Your task to perform on an android device: check the backup settings in the google photos Image 0: 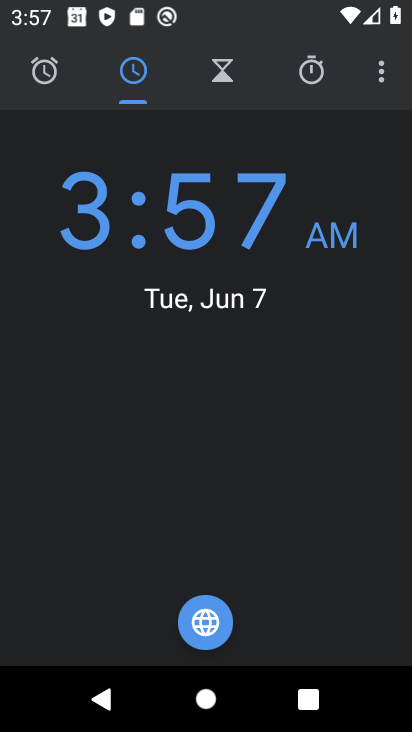
Step 0: press back button
Your task to perform on an android device: check the backup settings in the google photos Image 1: 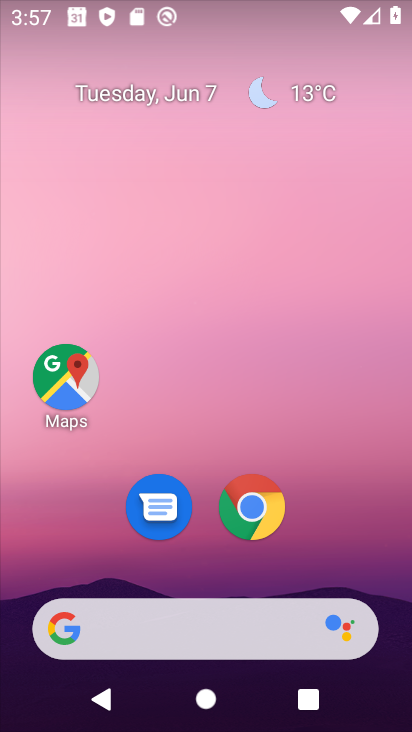
Step 1: drag from (288, 250) to (230, 29)
Your task to perform on an android device: check the backup settings in the google photos Image 2: 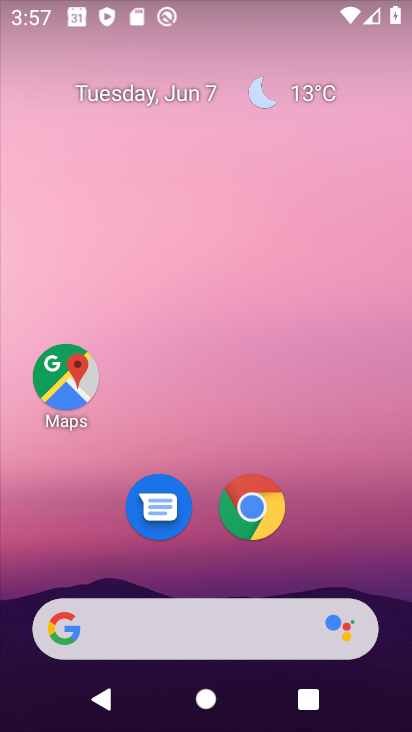
Step 2: drag from (304, 475) to (216, 36)
Your task to perform on an android device: check the backup settings in the google photos Image 3: 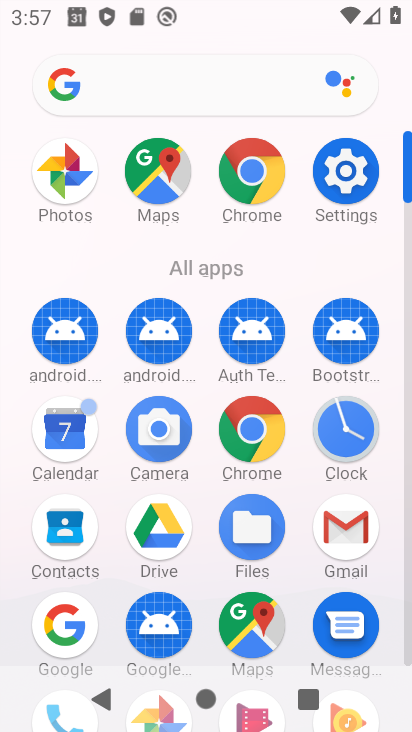
Step 3: drag from (27, 594) to (12, 229)
Your task to perform on an android device: check the backup settings in the google photos Image 4: 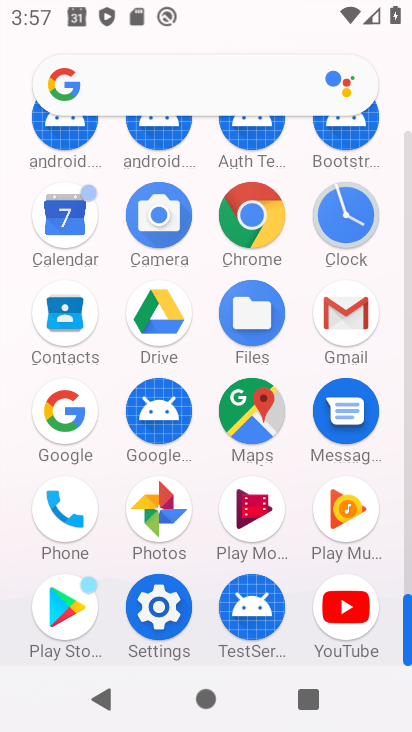
Step 4: click (158, 508)
Your task to perform on an android device: check the backup settings in the google photos Image 5: 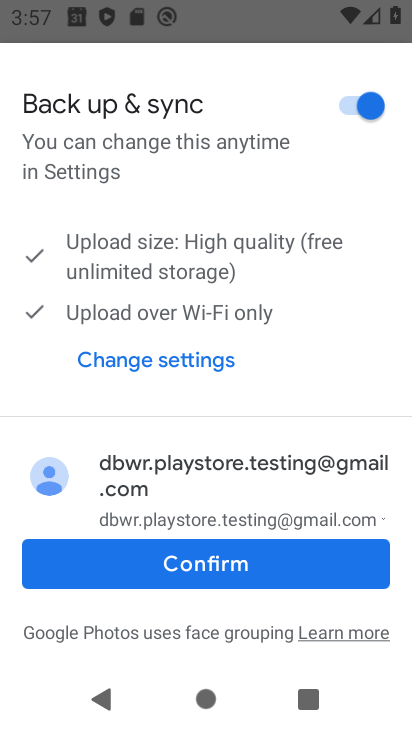
Step 5: click (267, 558)
Your task to perform on an android device: check the backup settings in the google photos Image 6: 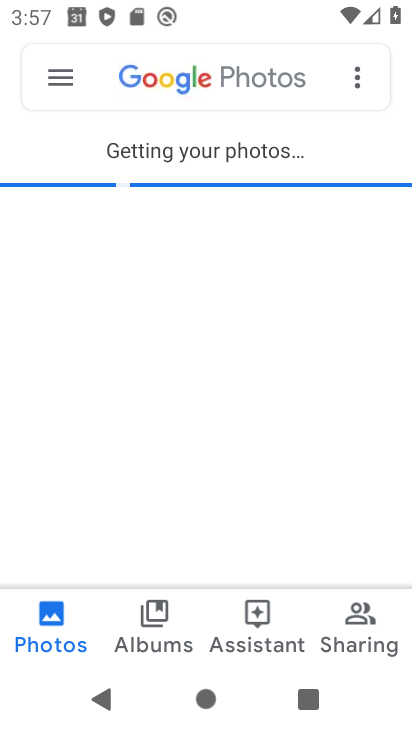
Step 6: click (59, 79)
Your task to perform on an android device: check the backup settings in the google photos Image 7: 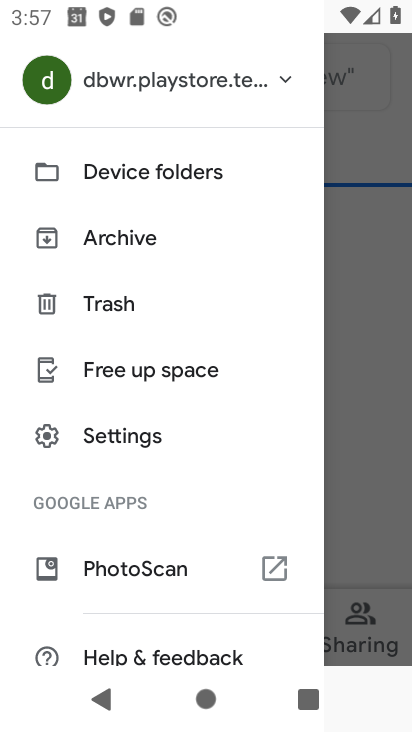
Step 7: click (157, 428)
Your task to perform on an android device: check the backup settings in the google photos Image 8: 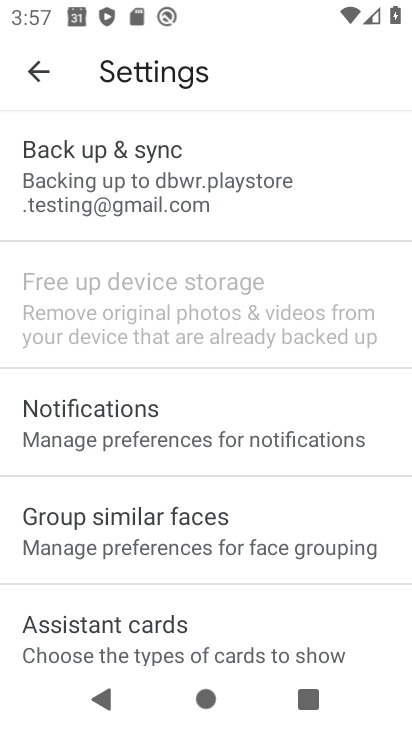
Step 8: click (188, 183)
Your task to perform on an android device: check the backup settings in the google photos Image 9: 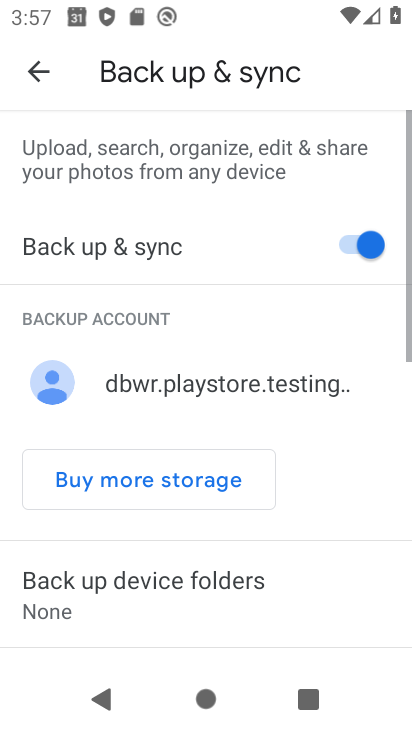
Step 9: drag from (342, 568) to (270, 179)
Your task to perform on an android device: check the backup settings in the google photos Image 10: 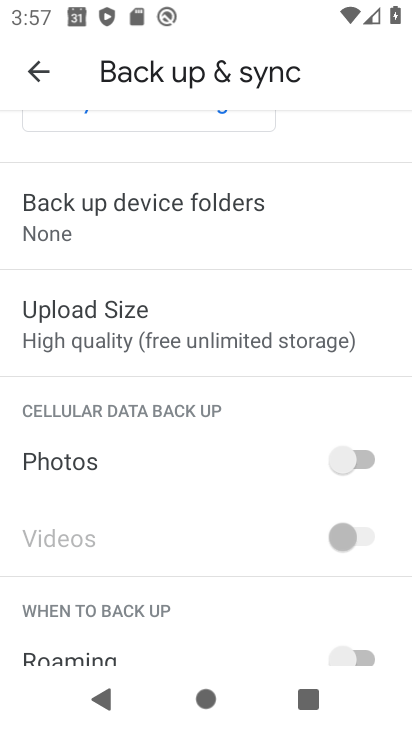
Step 10: drag from (201, 570) to (223, 242)
Your task to perform on an android device: check the backup settings in the google photos Image 11: 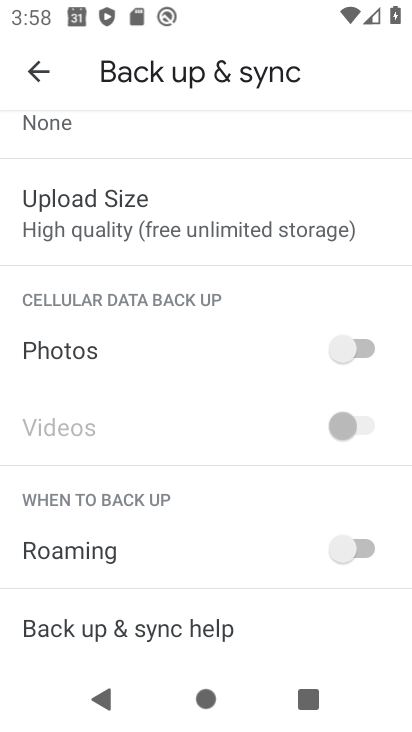
Step 11: click (31, 60)
Your task to perform on an android device: check the backup settings in the google photos Image 12: 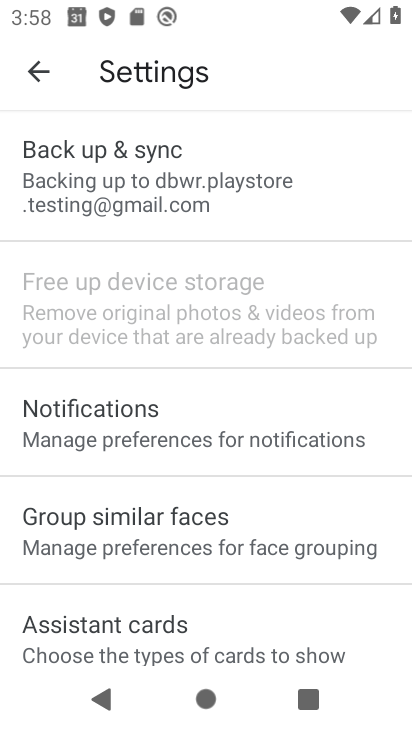
Step 12: task complete